Your task to perform on an android device: Go to privacy settings Image 0: 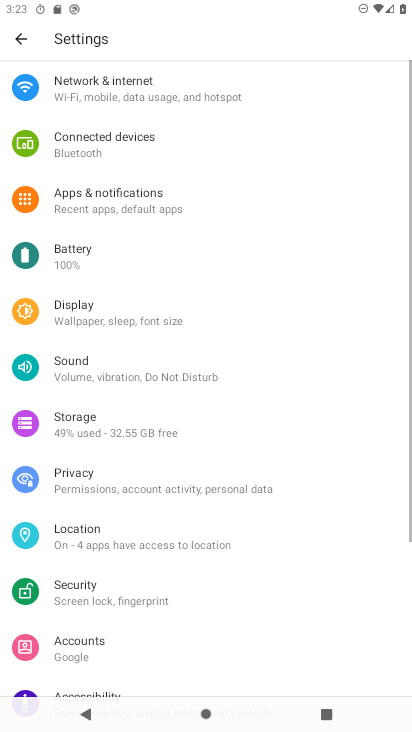
Step 0: press home button
Your task to perform on an android device: Go to privacy settings Image 1: 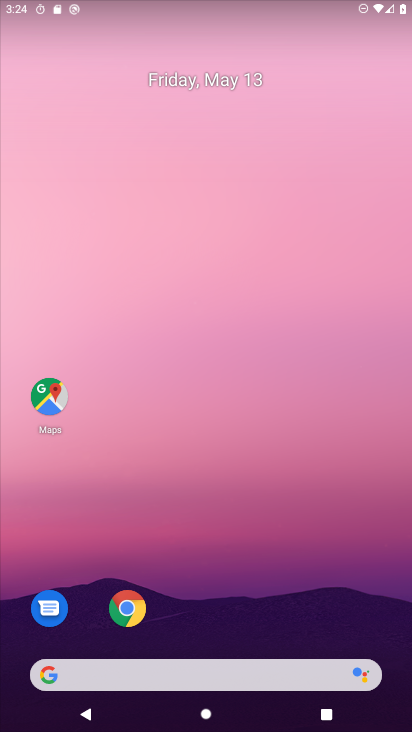
Step 1: drag from (275, 593) to (311, 0)
Your task to perform on an android device: Go to privacy settings Image 2: 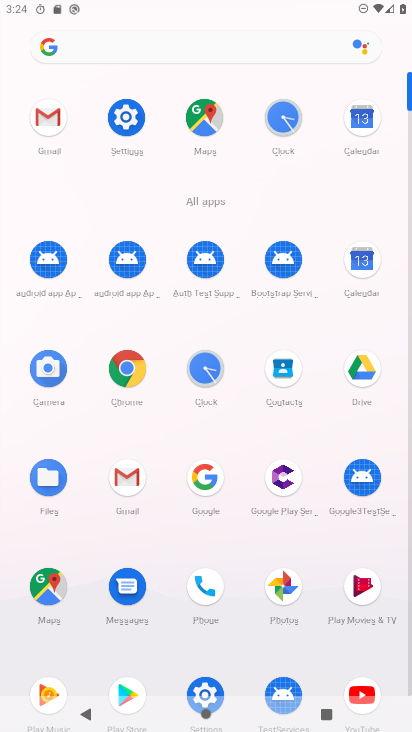
Step 2: click (212, 683)
Your task to perform on an android device: Go to privacy settings Image 3: 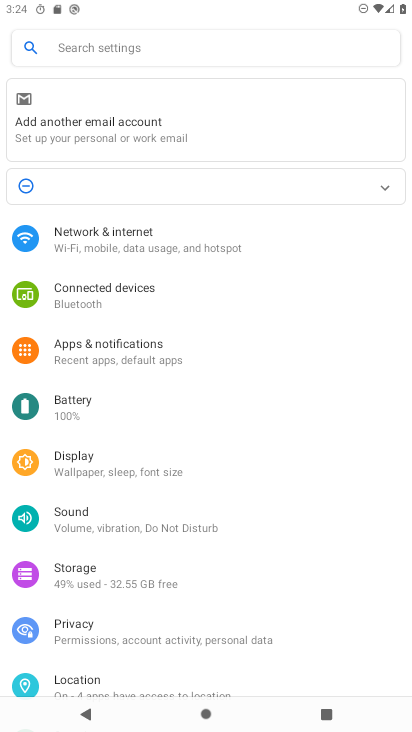
Step 3: click (104, 638)
Your task to perform on an android device: Go to privacy settings Image 4: 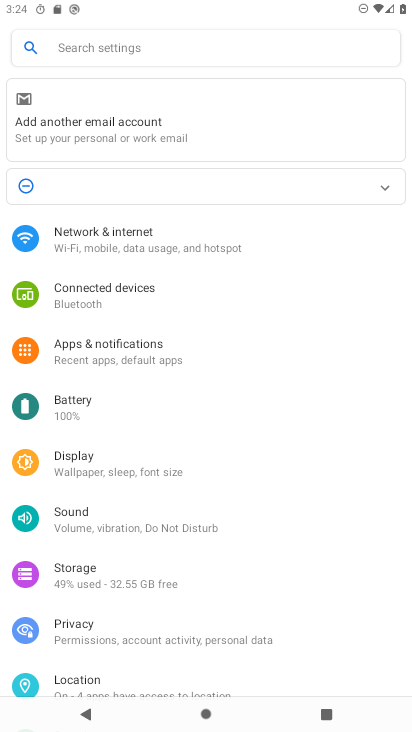
Step 4: click (74, 629)
Your task to perform on an android device: Go to privacy settings Image 5: 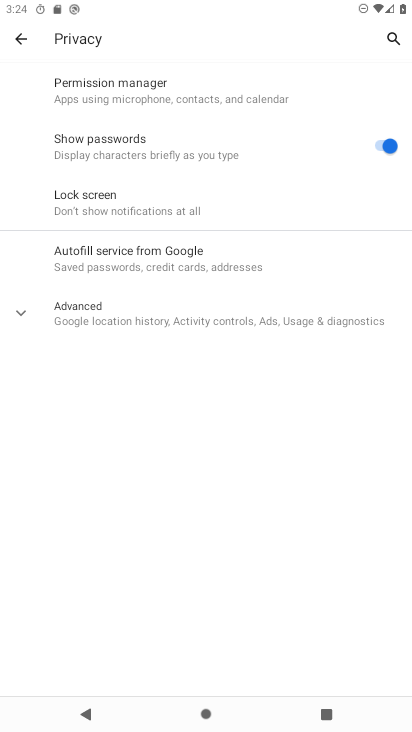
Step 5: task complete